Your task to perform on an android device: Search for sushi restaurants on Maps Image 0: 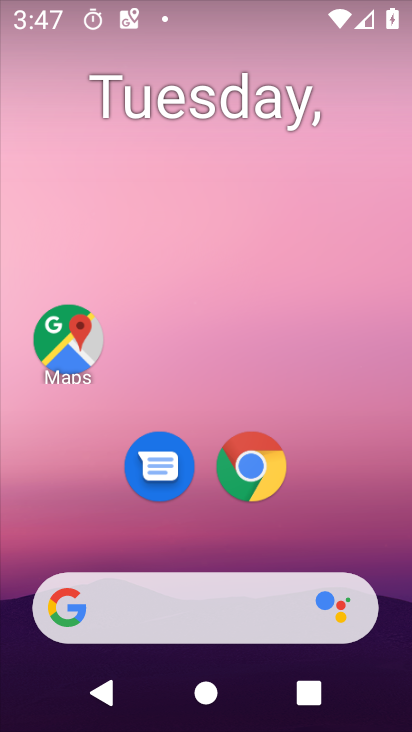
Step 0: drag from (368, 519) to (351, 193)
Your task to perform on an android device: Search for sushi restaurants on Maps Image 1: 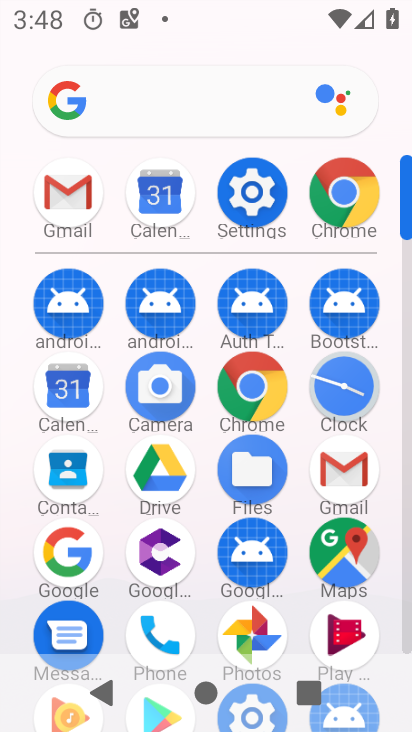
Step 1: click (357, 543)
Your task to perform on an android device: Search for sushi restaurants on Maps Image 2: 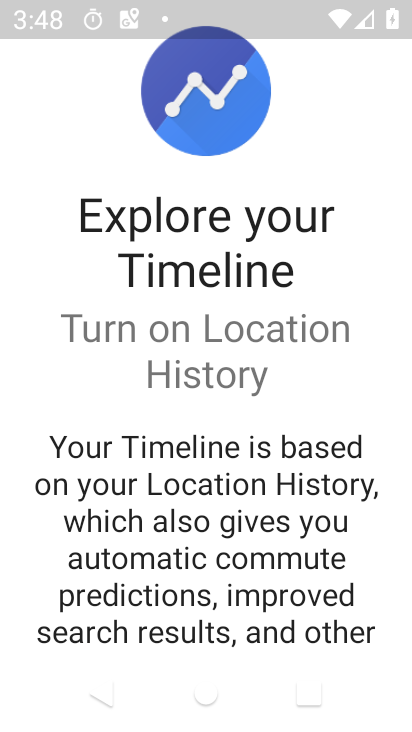
Step 2: drag from (371, 561) to (356, 323)
Your task to perform on an android device: Search for sushi restaurants on Maps Image 3: 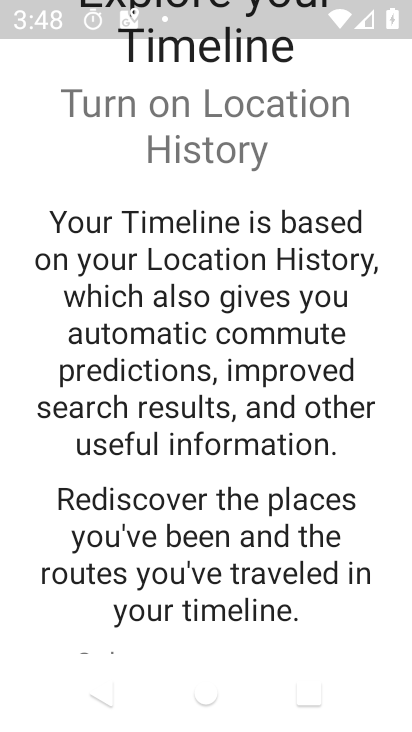
Step 3: drag from (322, 612) to (327, 355)
Your task to perform on an android device: Search for sushi restaurants on Maps Image 4: 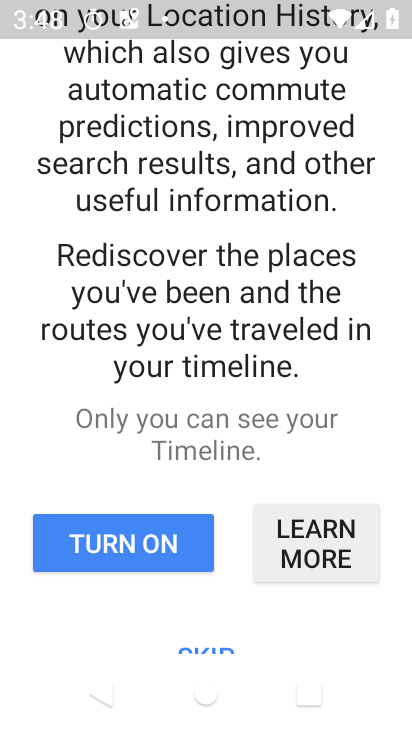
Step 4: drag from (230, 570) to (233, 380)
Your task to perform on an android device: Search for sushi restaurants on Maps Image 5: 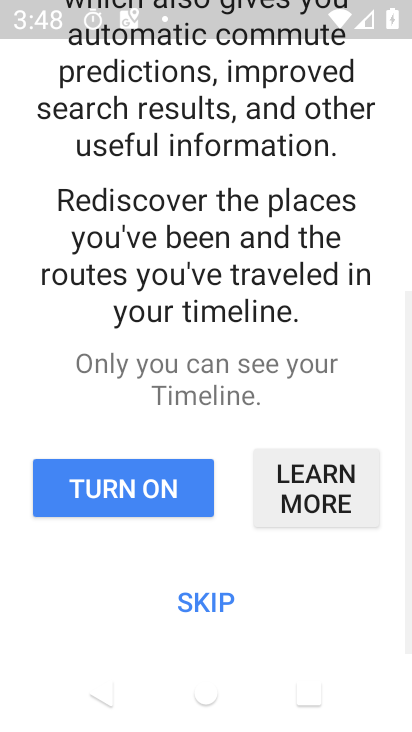
Step 5: click (214, 601)
Your task to perform on an android device: Search for sushi restaurants on Maps Image 6: 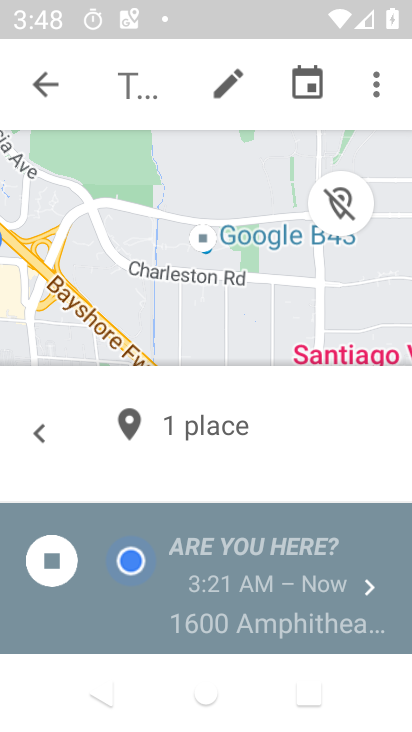
Step 6: click (35, 99)
Your task to perform on an android device: Search for sushi restaurants on Maps Image 7: 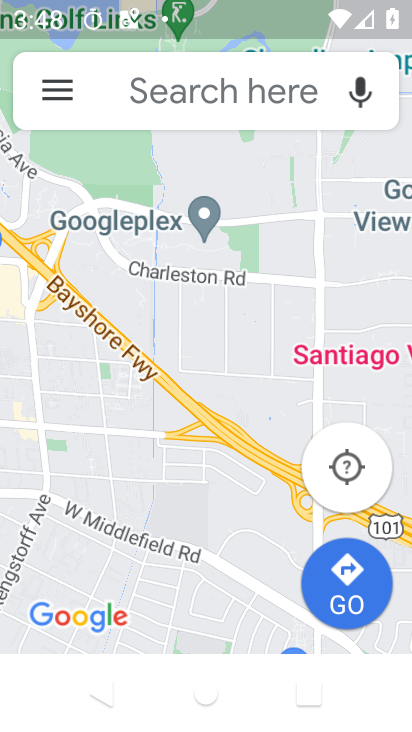
Step 7: click (226, 72)
Your task to perform on an android device: Search for sushi restaurants on Maps Image 8: 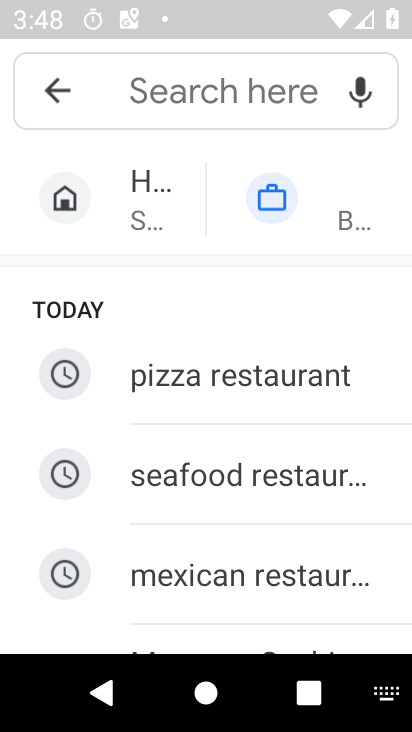
Step 8: type "sushi restaurants"
Your task to perform on an android device: Search for sushi restaurants on Maps Image 9: 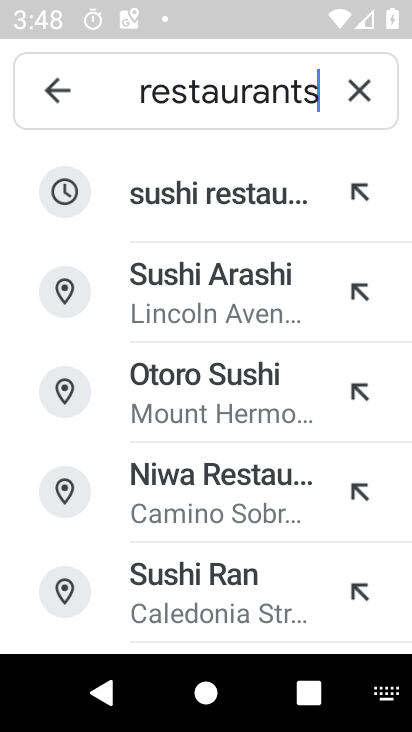
Step 9: click (259, 207)
Your task to perform on an android device: Search for sushi restaurants on Maps Image 10: 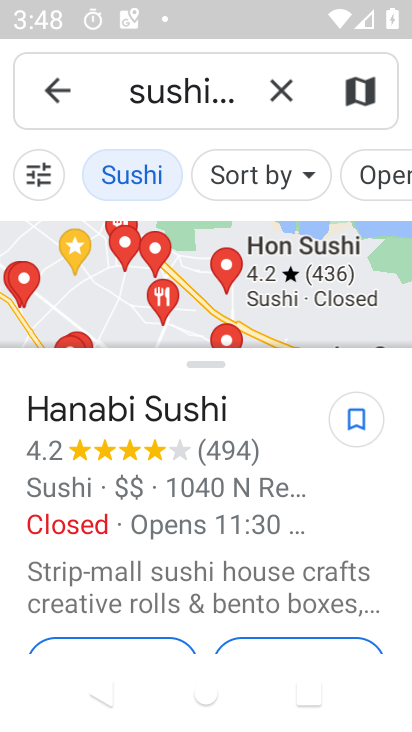
Step 10: task complete